Your task to perform on an android device: Go to Yahoo.com Image 0: 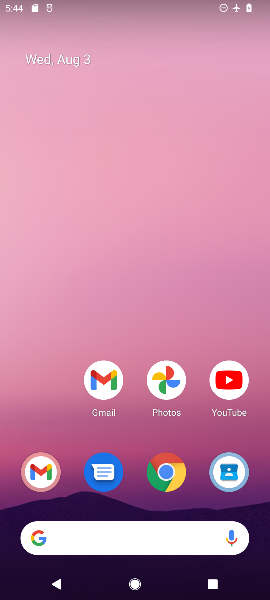
Step 0: drag from (185, 504) to (90, 46)
Your task to perform on an android device: Go to Yahoo.com Image 1: 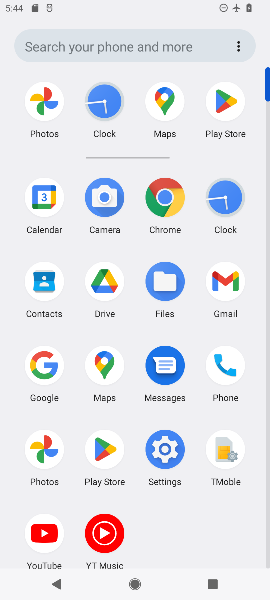
Step 1: click (46, 374)
Your task to perform on an android device: Go to Yahoo.com Image 2: 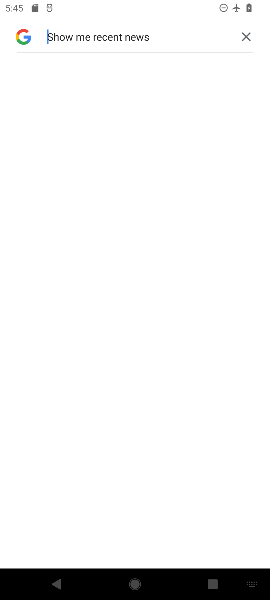
Step 2: click (245, 41)
Your task to perform on an android device: Go to Yahoo.com Image 3: 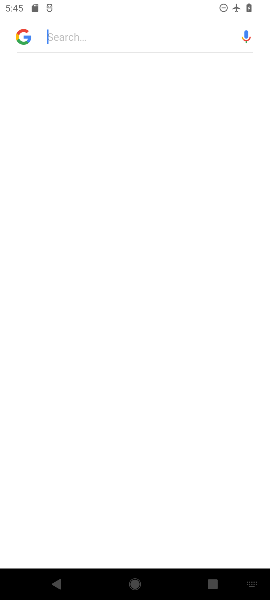
Step 3: type "Yahoo.com"
Your task to perform on an android device: Go to Yahoo.com Image 4: 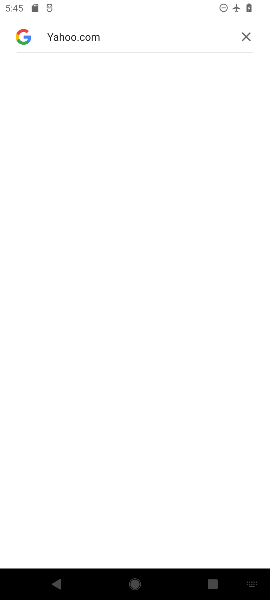
Step 4: task complete